Your task to perform on an android device: Go to accessibility settings Image 0: 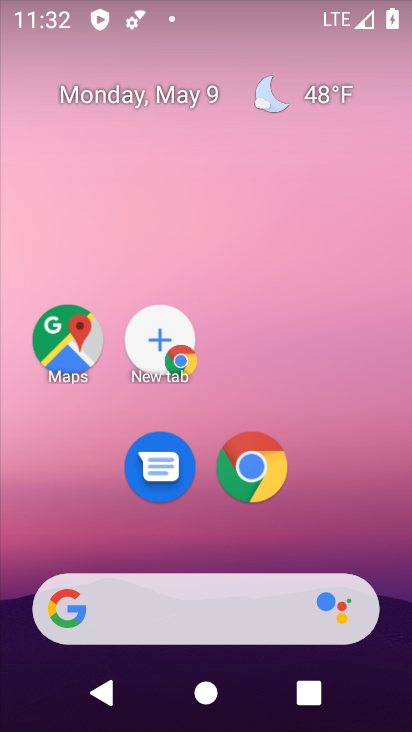
Step 0: drag from (389, 575) to (67, 9)
Your task to perform on an android device: Go to accessibility settings Image 1: 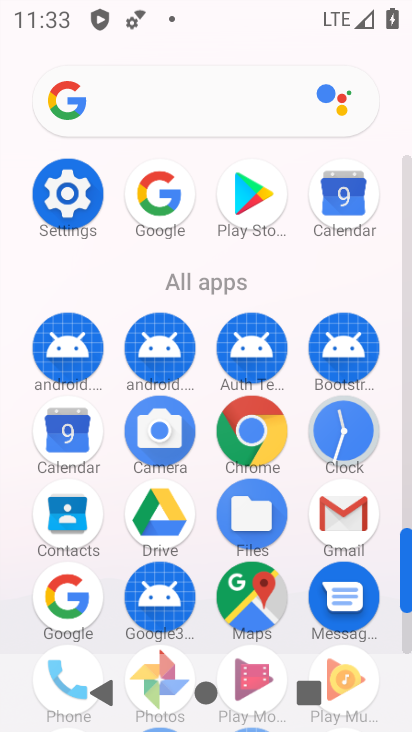
Step 1: click (42, 177)
Your task to perform on an android device: Go to accessibility settings Image 2: 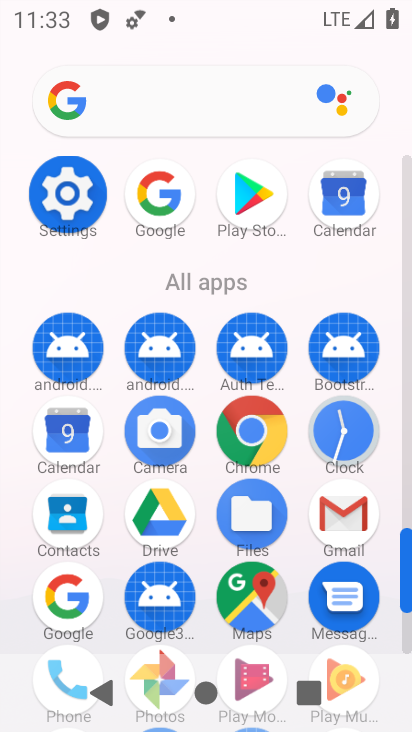
Step 2: click (63, 211)
Your task to perform on an android device: Go to accessibility settings Image 3: 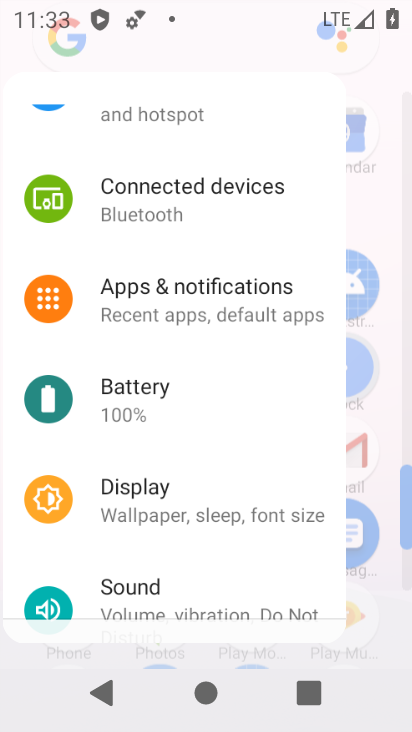
Step 3: click (62, 199)
Your task to perform on an android device: Go to accessibility settings Image 4: 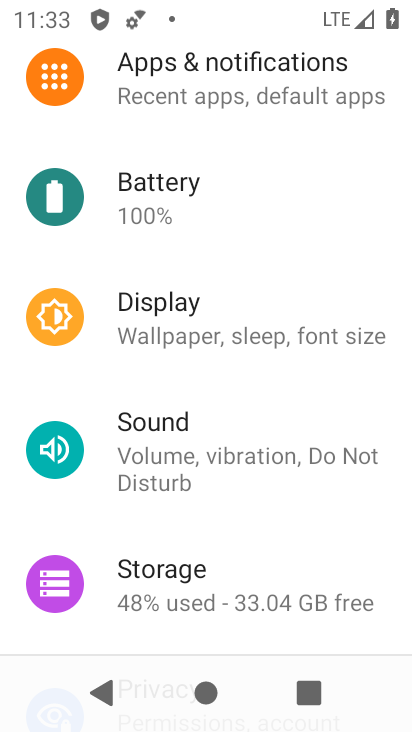
Step 4: click (60, 197)
Your task to perform on an android device: Go to accessibility settings Image 5: 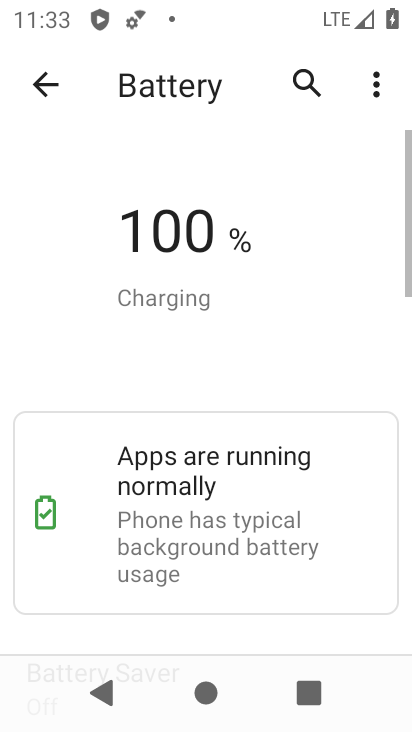
Step 5: click (44, 88)
Your task to perform on an android device: Go to accessibility settings Image 6: 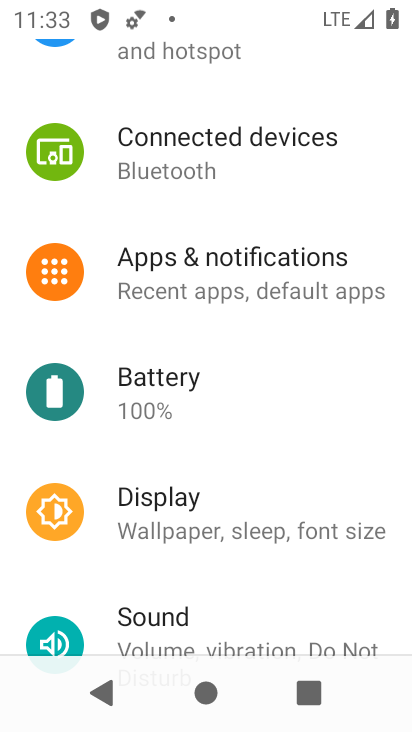
Step 6: drag from (192, 504) to (139, 231)
Your task to perform on an android device: Go to accessibility settings Image 7: 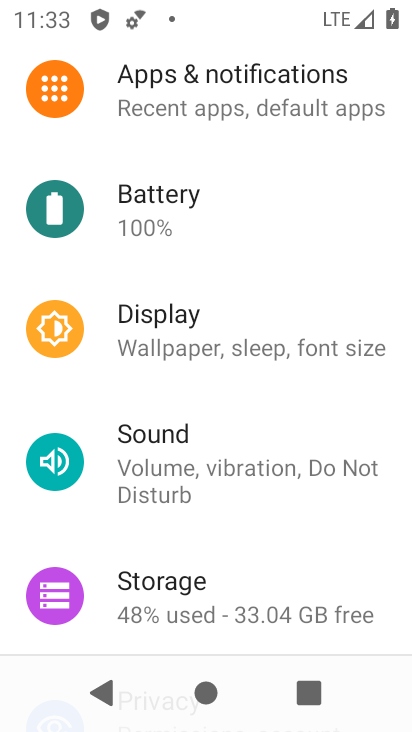
Step 7: drag from (212, 498) to (208, 212)
Your task to perform on an android device: Go to accessibility settings Image 8: 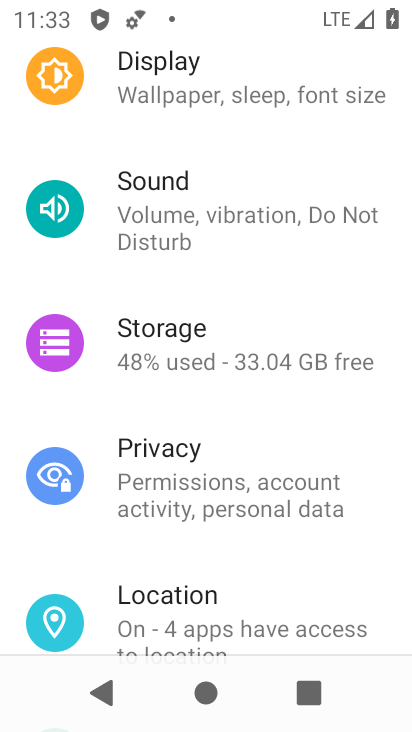
Step 8: click (223, 163)
Your task to perform on an android device: Go to accessibility settings Image 9: 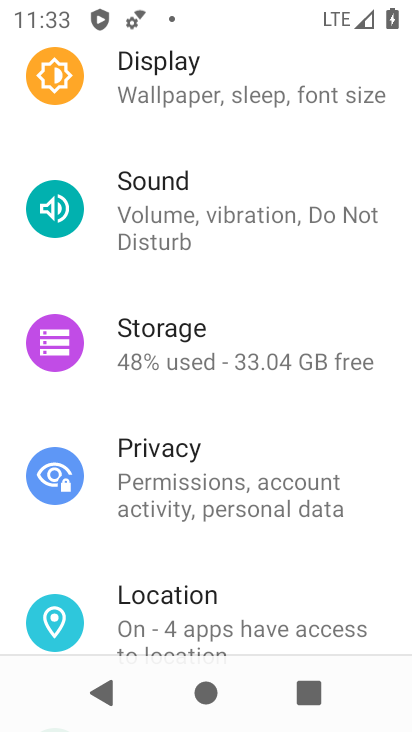
Step 9: drag from (243, 326) to (246, 141)
Your task to perform on an android device: Go to accessibility settings Image 10: 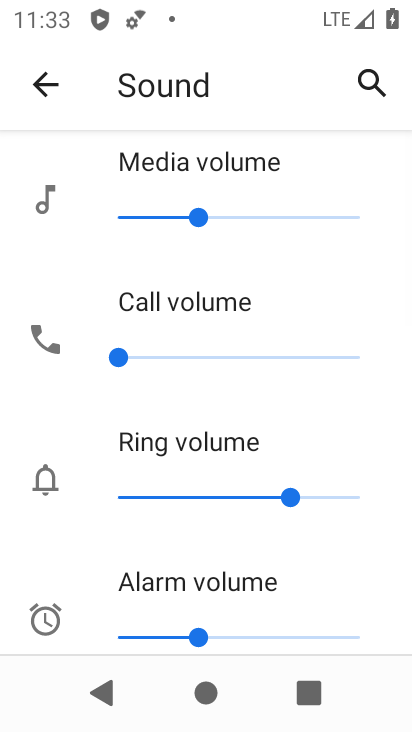
Step 10: click (32, 81)
Your task to perform on an android device: Go to accessibility settings Image 11: 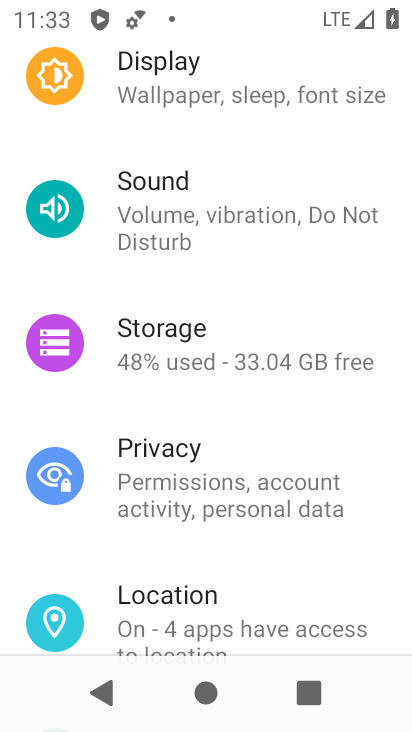
Step 11: drag from (179, 526) to (174, 157)
Your task to perform on an android device: Go to accessibility settings Image 12: 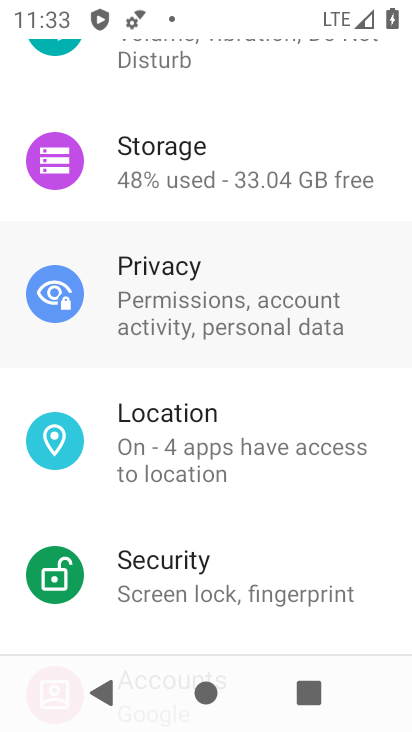
Step 12: drag from (179, 401) to (192, 118)
Your task to perform on an android device: Go to accessibility settings Image 13: 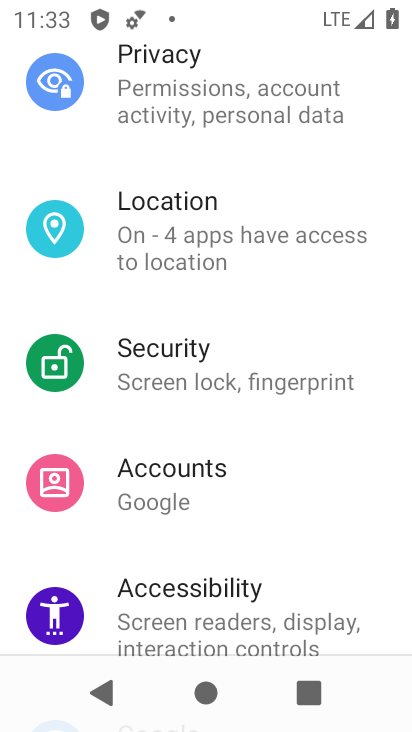
Step 13: drag from (238, 426) to (255, 131)
Your task to perform on an android device: Go to accessibility settings Image 14: 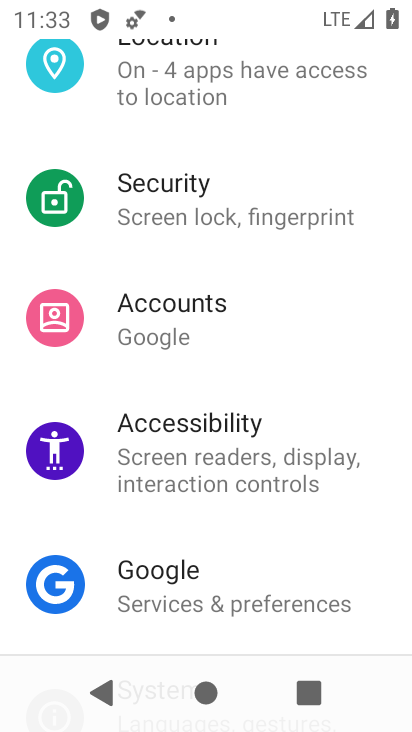
Step 14: drag from (249, 265) to (217, 117)
Your task to perform on an android device: Go to accessibility settings Image 15: 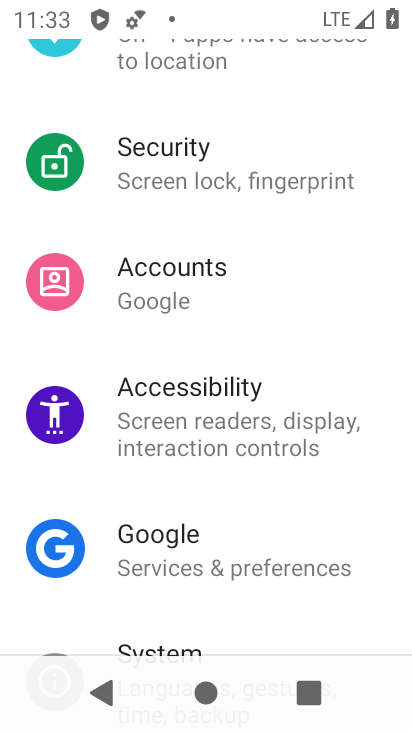
Step 15: click (203, 438)
Your task to perform on an android device: Go to accessibility settings Image 16: 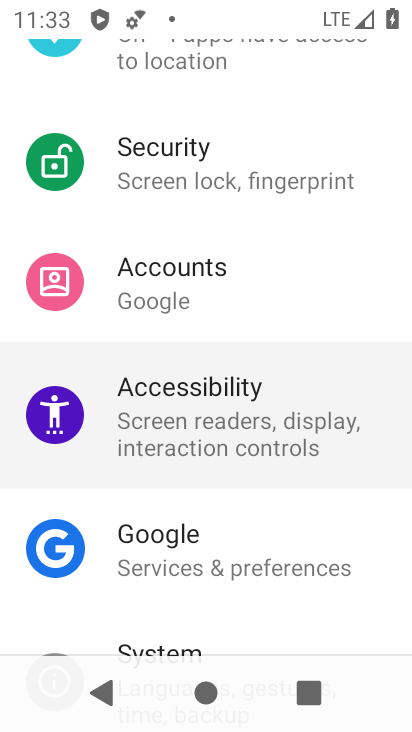
Step 16: click (204, 436)
Your task to perform on an android device: Go to accessibility settings Image 17: 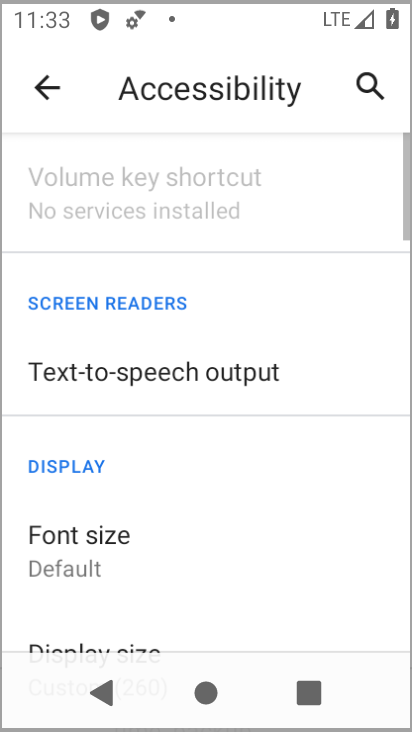
Step 17: click (204, 436)
Your task to perform on an android device: Go to accessibility settings Image 18: 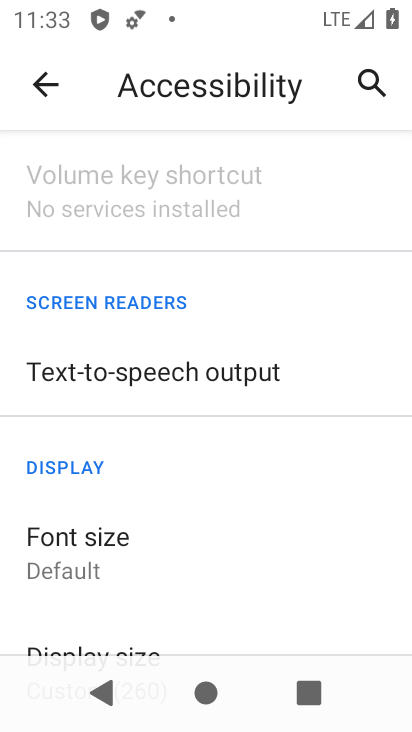
Step 18: task complete